Your task to perform on an android device: Go to accessibility settings Image 0: 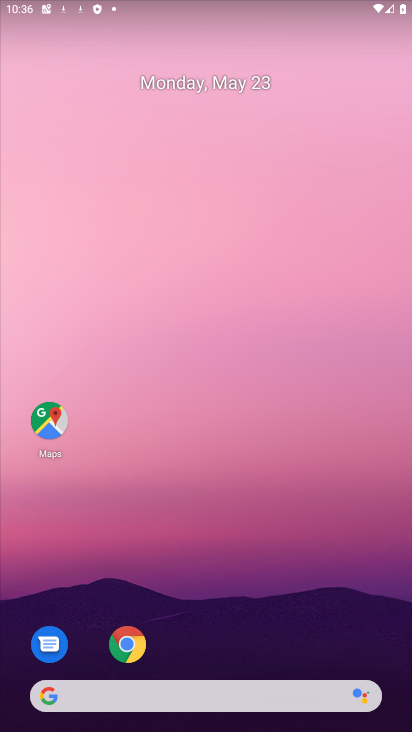
Step 0: drag from (282, 718) to (277, 136)
Your task to perform on an android device: Go to accessibility settings Image 1: 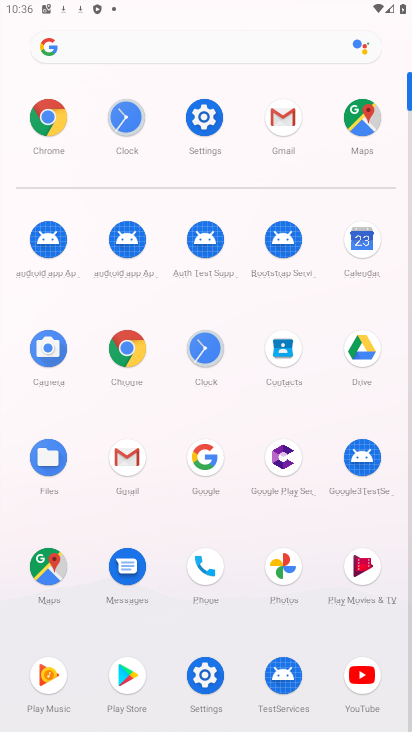
Step 1: click (203, 124)
Your task to perform on an android device: Go to accessibility settings Image 2: 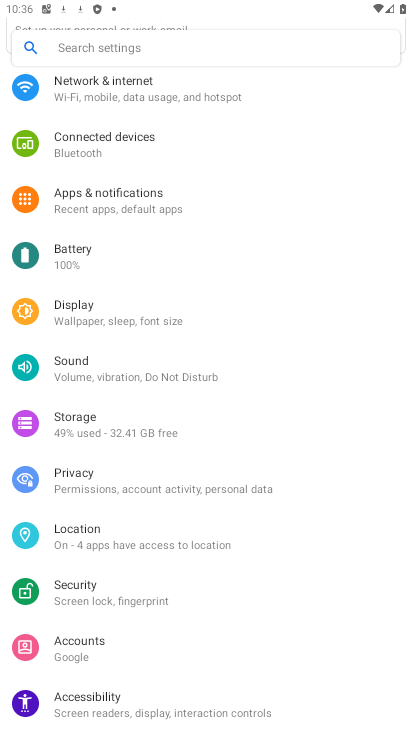
Step 2: click (115, 48)
Your task to perform on an android device: Go to accessibility settings Image 3: 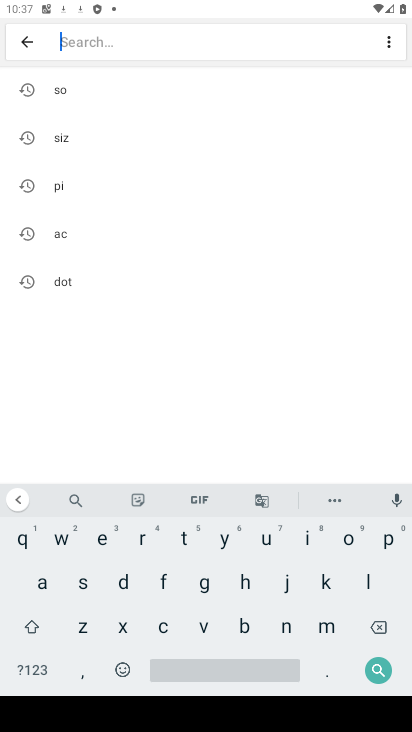
Step 3: click (36, 582)
Your task to perform on an android device: Go to accessibility settings Image 4: 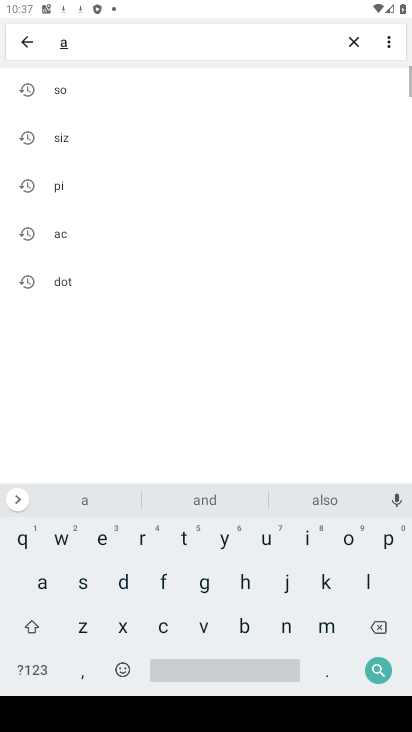
Step 4: click (156, 628)
Your task to perform on an android device: Go to accessibility settings Image 5: 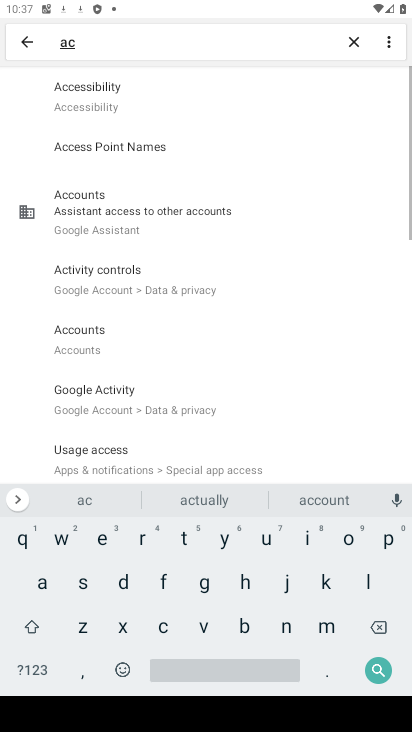
Step 5: click (122, 103)
Your task to perform on an android device: Go to accessibility settings Image 6: 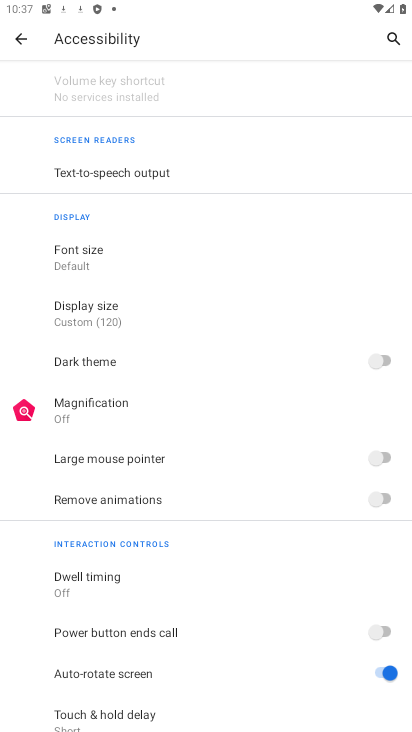
Step 6: task complete